Your task to perform on an android device: Open Android settings Image 0: 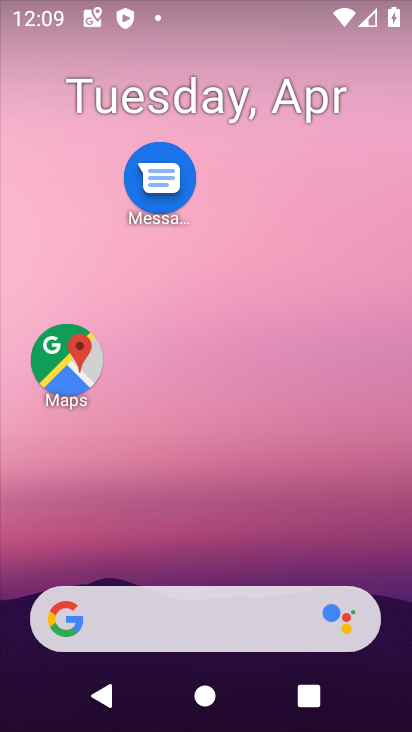
Step 0: drag from (204, 725) to (216, 28)
Your task to perform on an android device: Open Android settings Image 1: 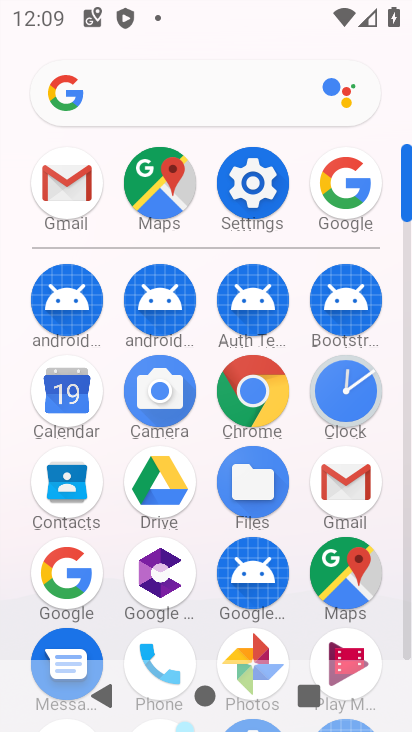
Step 1: click (251, 189)
Your task to perform on an android device: Open Android settings Image 2: 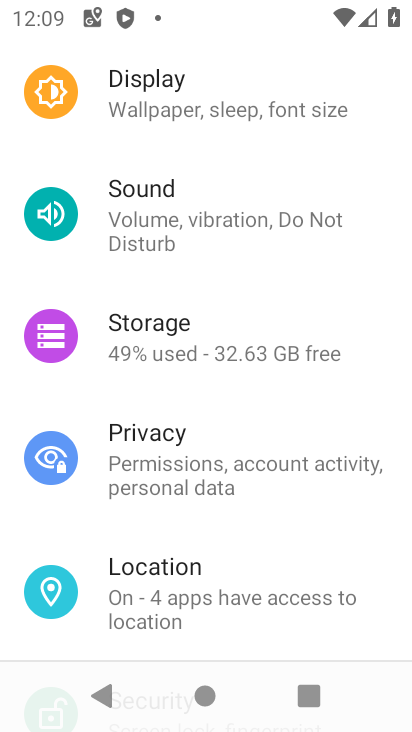
Step 2: drag from (204, 637) to (204, 162)
Your task to perform on an android device: Open Android settings Image 3: 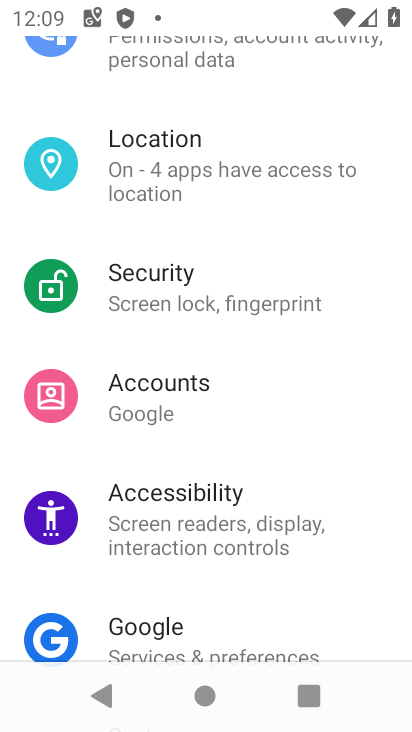
Step 3: drag from (208, 610) to (208, 118)
Your task to perform on an android device: Open Android settings Image 4: 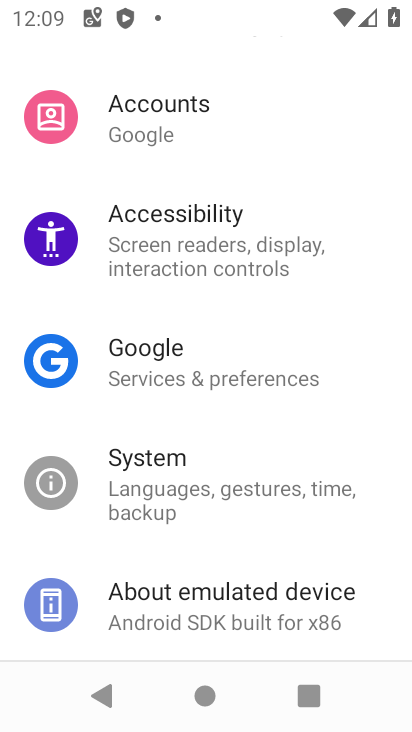
Step 4: click (220, 604)
Your task to perform on an android device: Open Android settings Image 5: 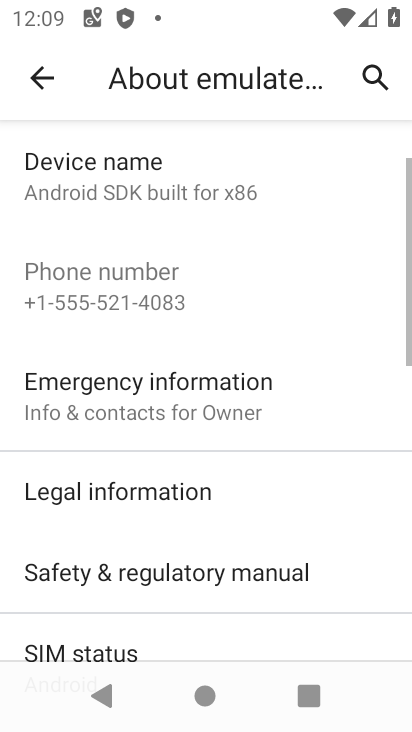
Step 5: task complete